Your task to perform on an android device: change keyboard looks Image 0: 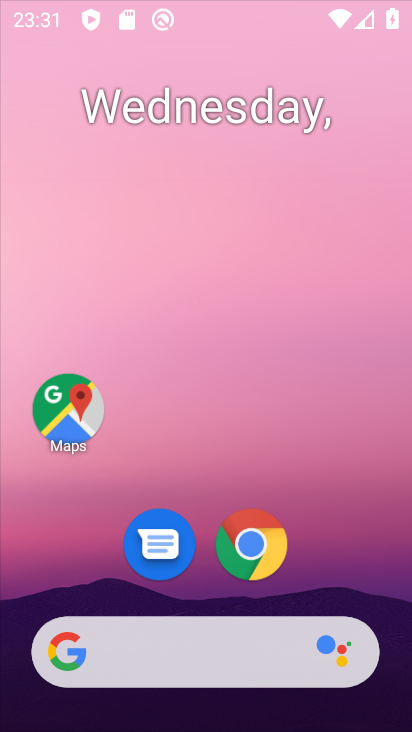
Step 0: drag from (344, 99) to (344, 25)
Your task to perform on an android device: change keyboard looks Image 1: 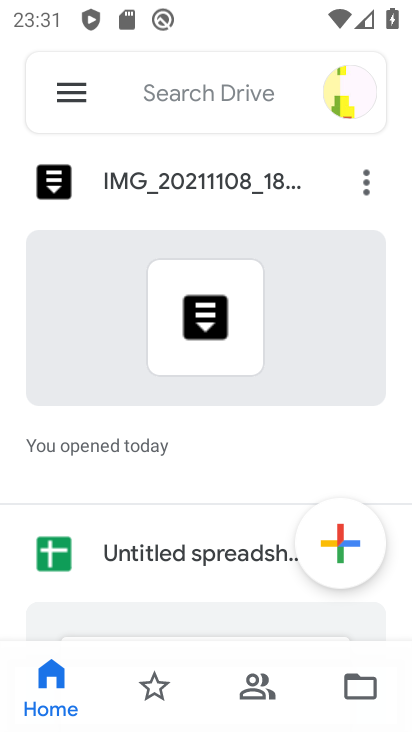
Step 1: press home button
Your task to perform on an android device: change keyboard looks Image 2: 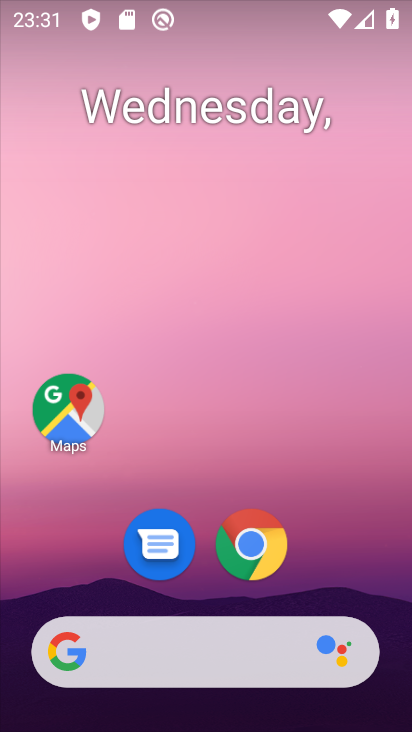
Step 2: drag from (332, 472) to (313, 0)
Your task to perform on an android device: change keyboard looks Image 3: 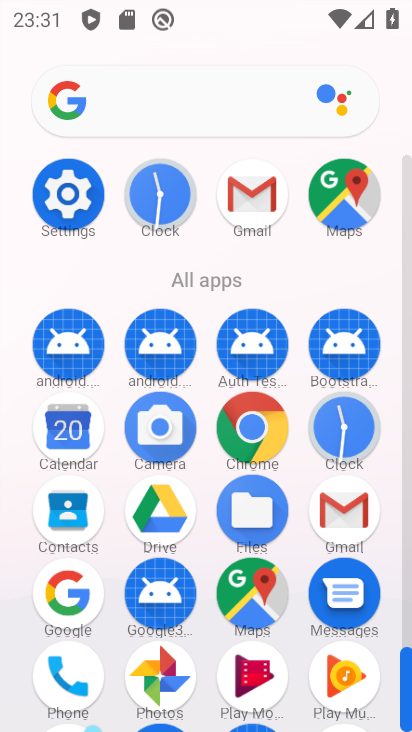
Step 3: click (54, 201)
Your task to perform on an android device: change keyboard looks Image 4: 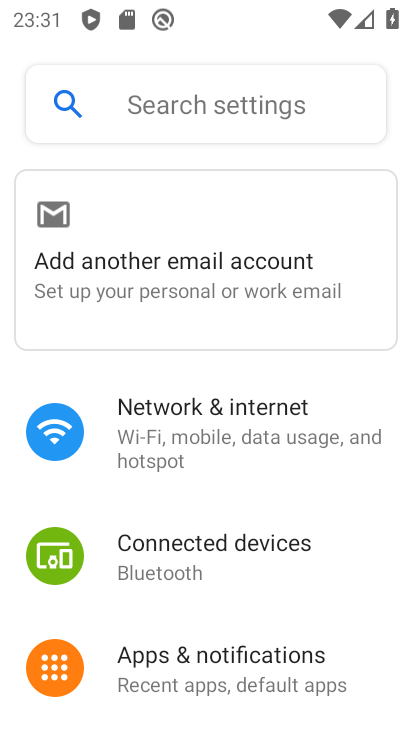
Step 4: drag from (383, 675) to (263, 0)
Your task to perform on an android device: change keyboard looks Image 5: 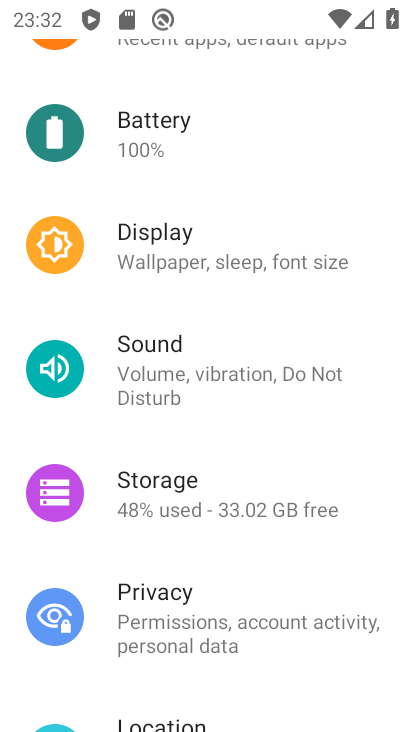
Step 5: drag from (284, 612) to (344, 167)
Your task to perform on an android device: change keyboard looks Image 6: 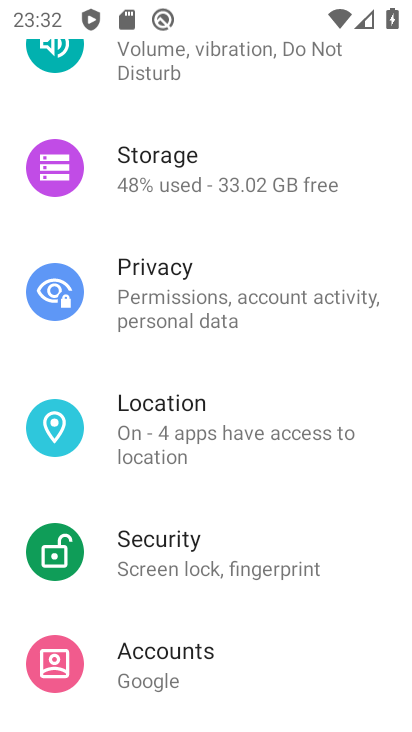
Step 6: drag from (300, 646) to (320, 2)
Your task to perform on an android device: change keyboard looks Image 7: 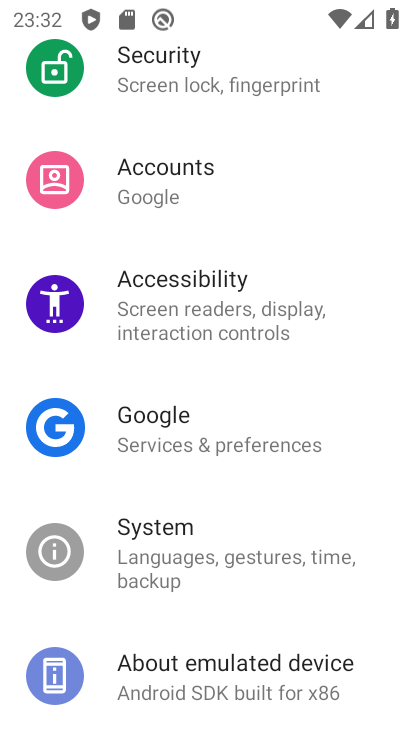
Step 7: click (155, 571)
Your task to perform on an android device: change keyboard looks Image 8: 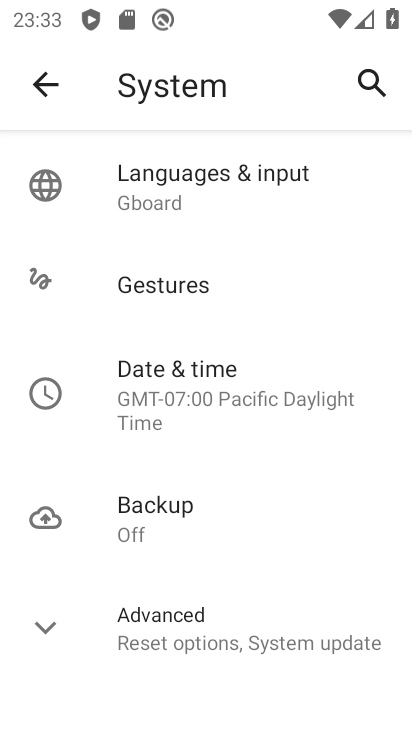
Step 8: click (253, 197)
Your task to perform on an android device: change keyboard looks Image 9: 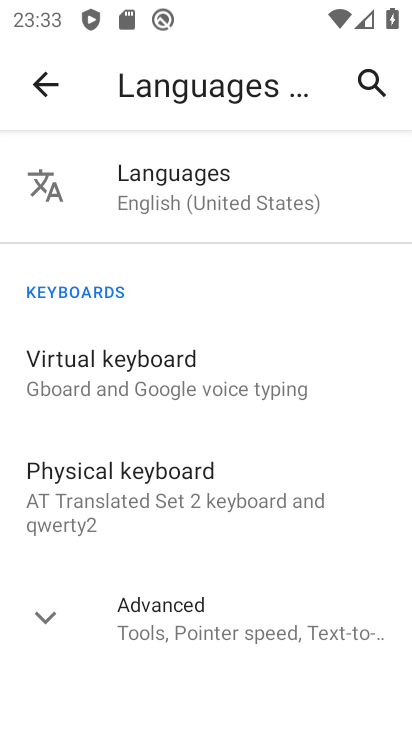
Step 9: click (212, 389)
Your task to perform on an android device: change keyboard looks Image 10: 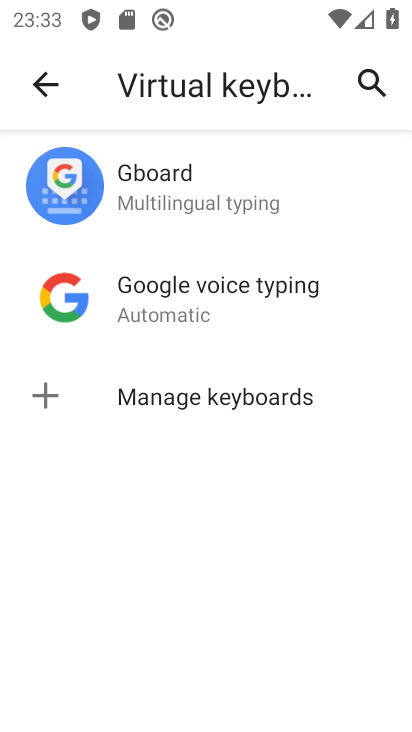
Step 10: click (309, 201)
Your task to perform on an android device: change keyboard looks Image 11: 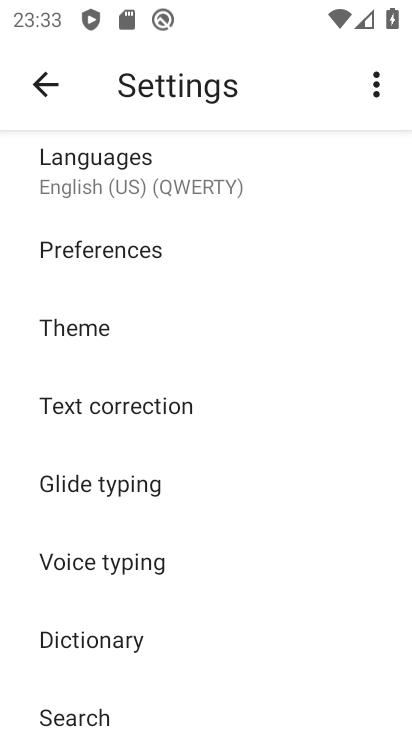
Step 11: click (95, 328)
Your task to perform on an android device: change keyboard looks Image 12: 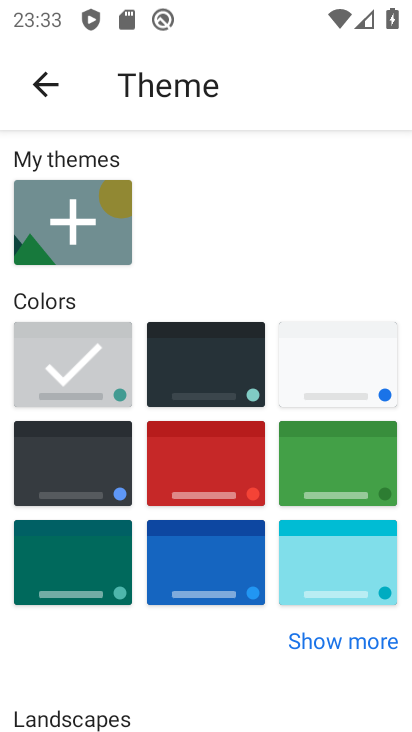
Step 12: click (219, 583)
Your task to perform on an android device: change keyboard looks Image 13: 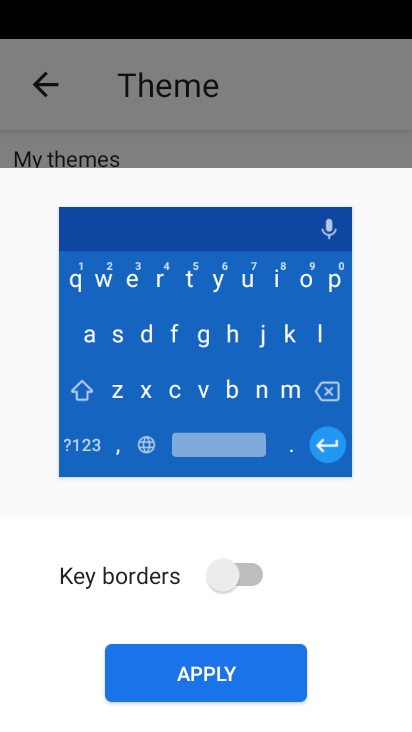
Step 13: click (243, 652)
Your task to perform on an android device: change keyboard looks Image 14: 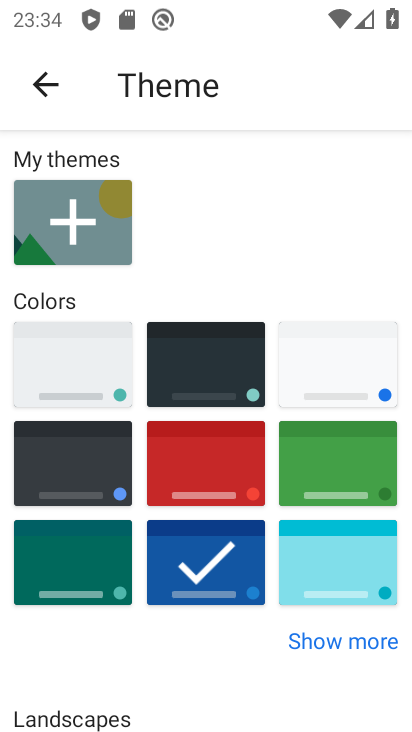
Step 14: task complete